Your task to perform on an android device: What's on my calendar today? Image 0: 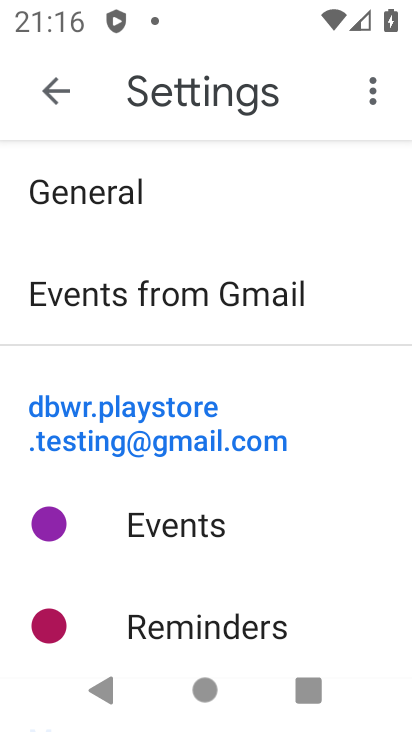
Step 0: press home button
Your task to perform on an android device: What's on my calendar today? Image 1: 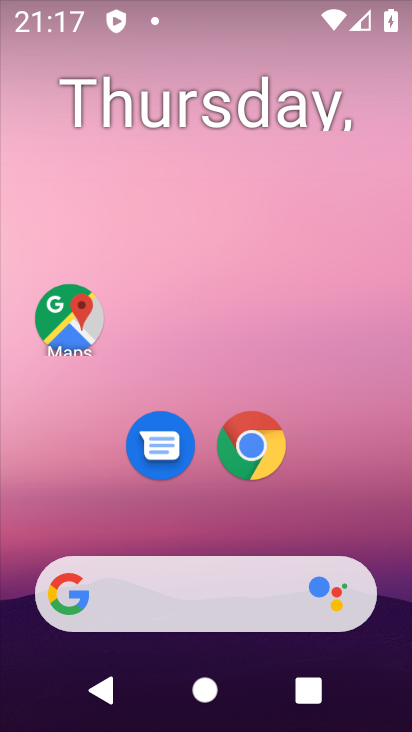
Step 1: drag from (47, 499) to (221, 224)
Your task to perform on an android device: What's on my calendar today? Image 2: 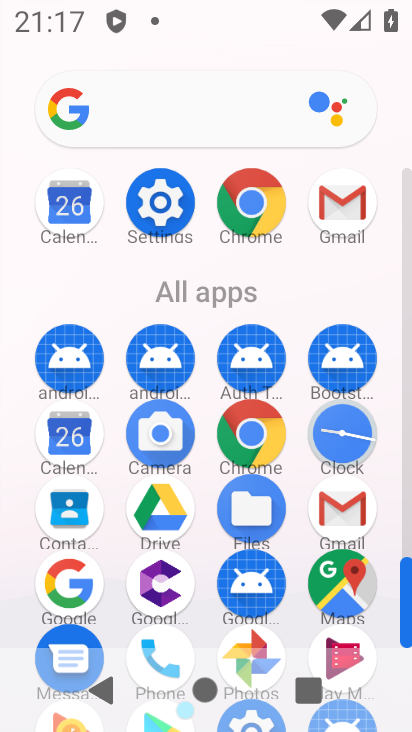
Step 2: click (74, 438)
Your task to perform on an android device: What's on my calendar today? Image 3: 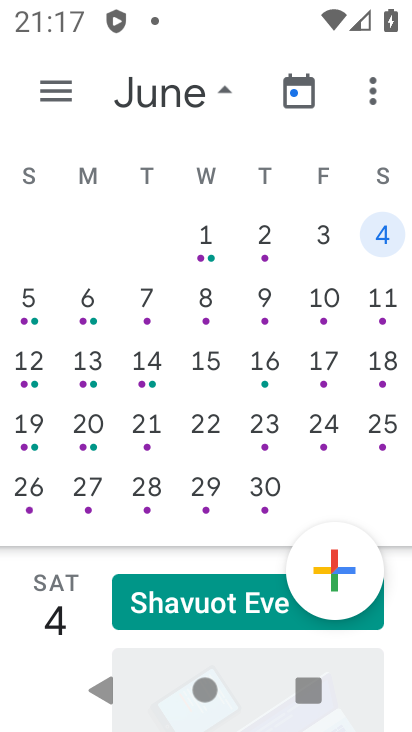
Step 3: drag from (119, 359) to (407, 362)
Your task to perform on an android device: What's on my calendar today? Image 4: 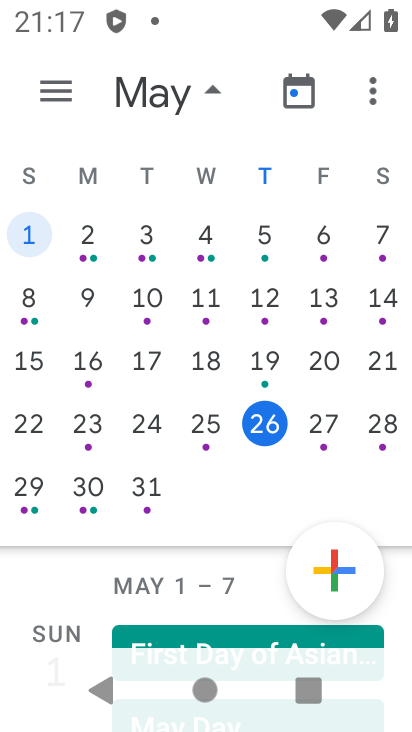
Step 4: click (258, 420)
Your task to perform on an android device: What's on my calendar today? Image 5: 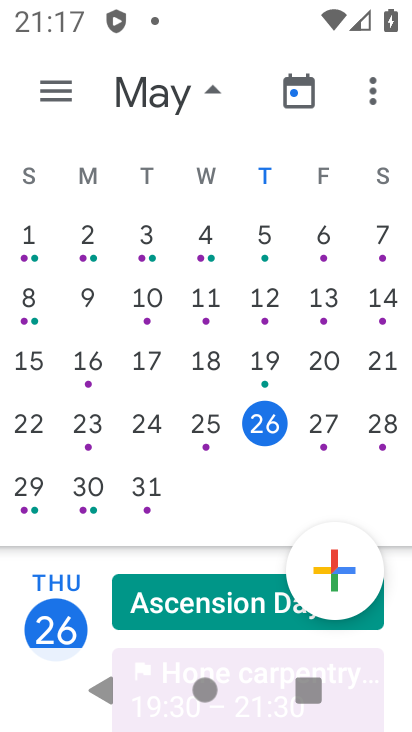
Step 5: task complete